Your task to perform on an android device: toggle pop-ups in chrome Image 0: 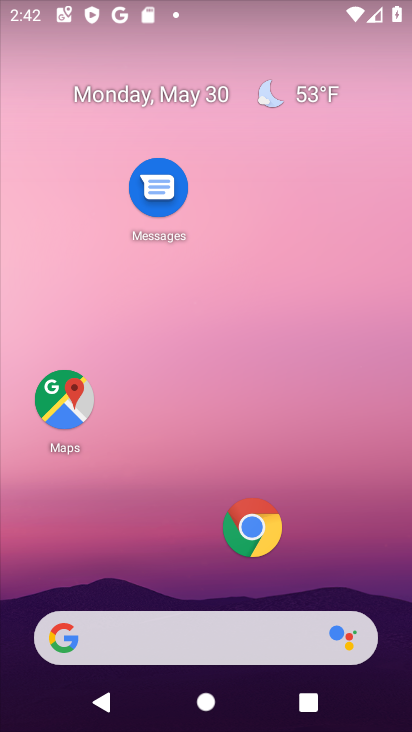
Step 0: drag from (103, 560) to (341, 75)
Your task to perform on an android device: toggle pop-ups in chrome Image 1: 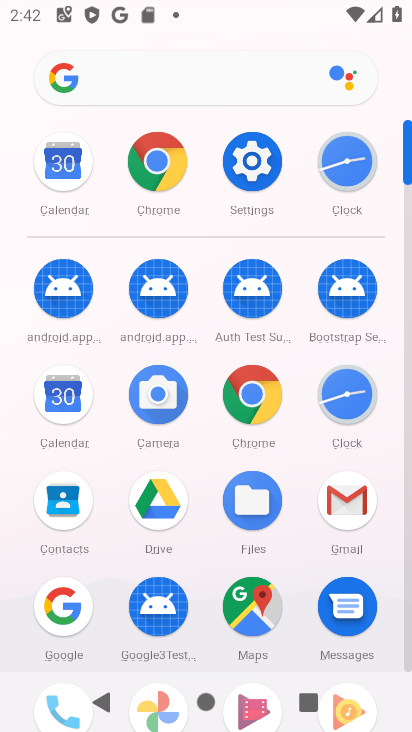
Step 1: click (274, 413)
Your task to perform on an android device: toggle pop-ups in chrome Image 2: 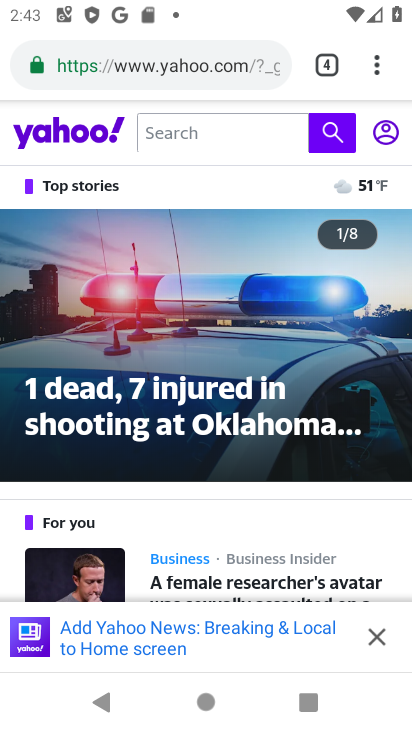
Step 2: click (380, 73)
Your task to perform on an android device: toggle pop-ups in chrome Image 3: 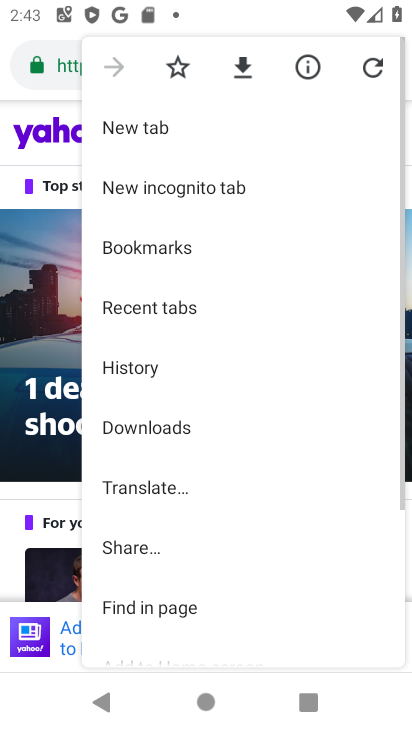
Step 3: drag from (171, 547) to (218, 225)
Your task to perform on an android device: toggle pop-ups in chrome Image 4: 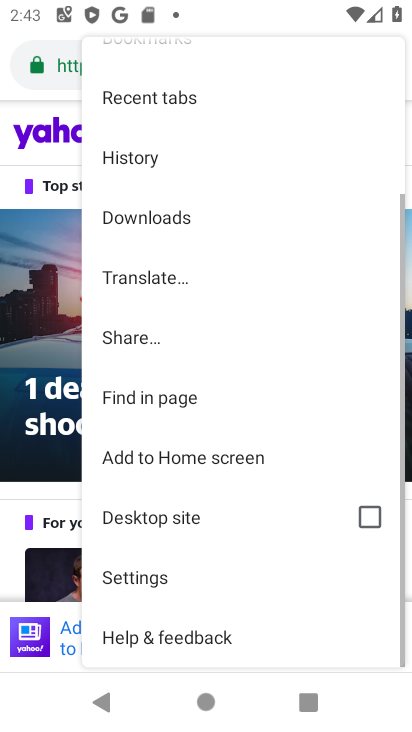
Step 4: click (174, 581)
Your task to perform on an android device: toggle pop-ups in chrome Image 5: 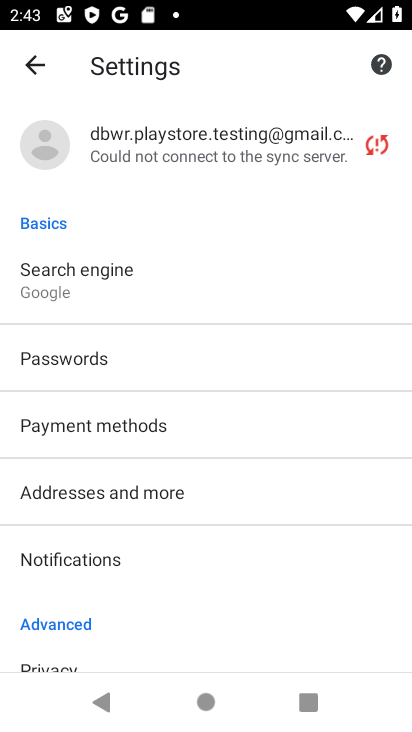
Step 5: drag from (180, 571) to (263, 124)
Your task to perform on an android device: toggle pop-ups in chrome Image 6: 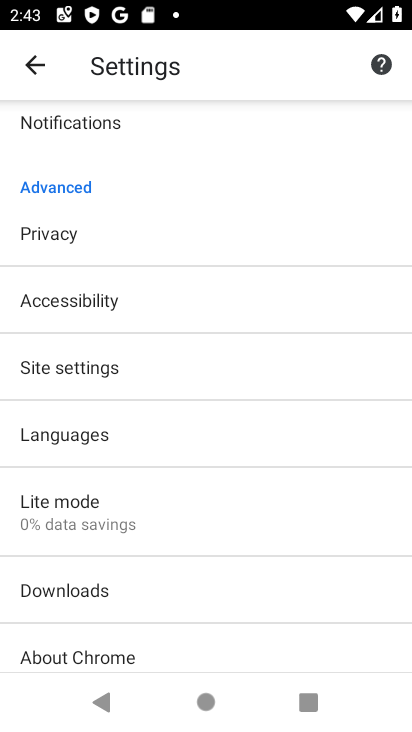
Step 6: click (126, 383)
Your task to perform on an android device: toggle pop-ups in chrome Image 7: 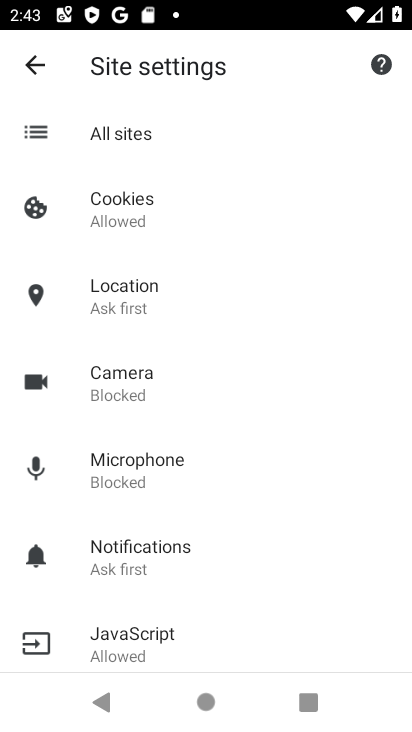
Step 7: drag from (163, 528) to (227, 204)
Your task to perform on an android device: toggle pop-ups in chrome Image 8: 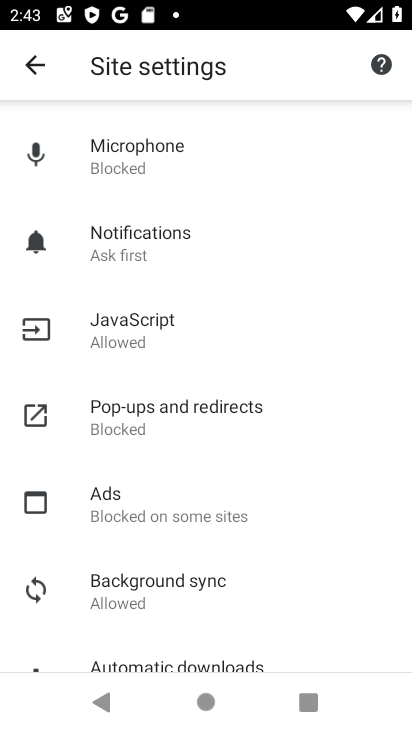
Step 8: click (205, 410)
Your task to perform on an android device: toggle pop-ups in chrome Image 9: 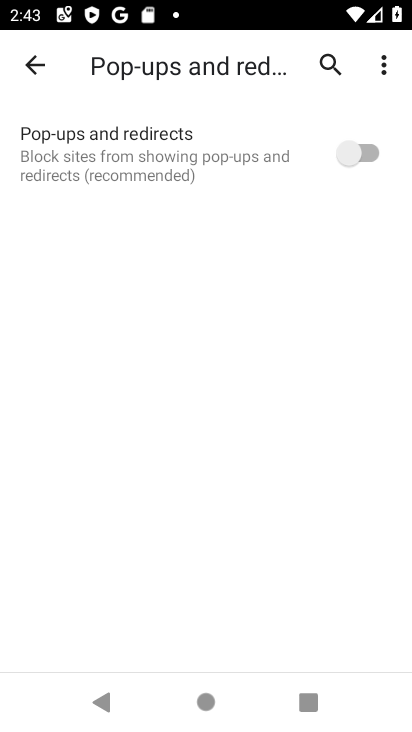
Step 9: click (333, 150)
Your task to perform on an android device: toggle pop-ups in chrome Image 10: 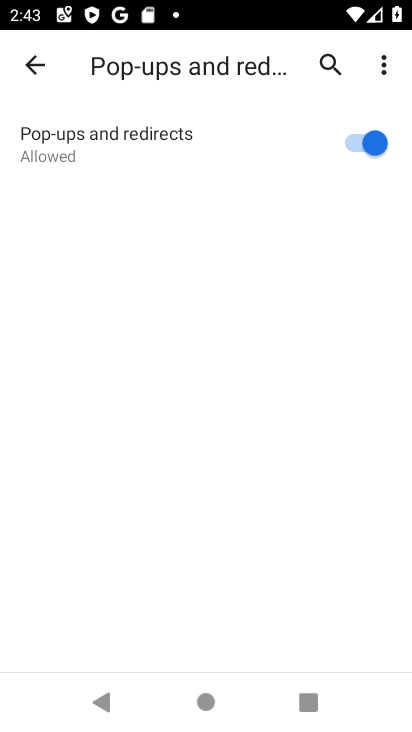
Step 10: task complete